Your task to perform on an android device: turn on translation in the chrome app Image 0: 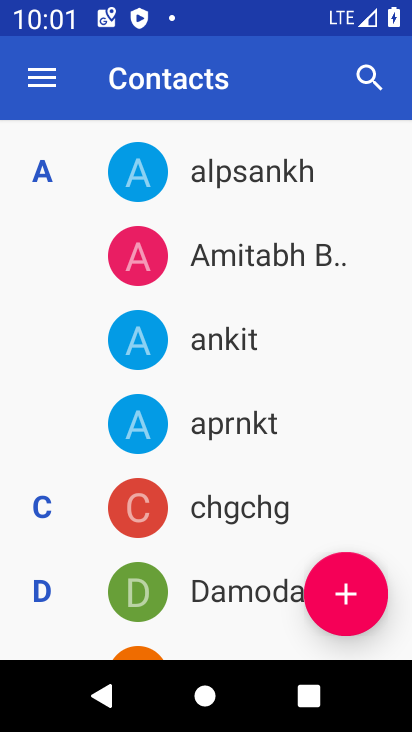
Step 0: press home button
Your task to perform on an android device: turn on translation in the chrome app Image 1: 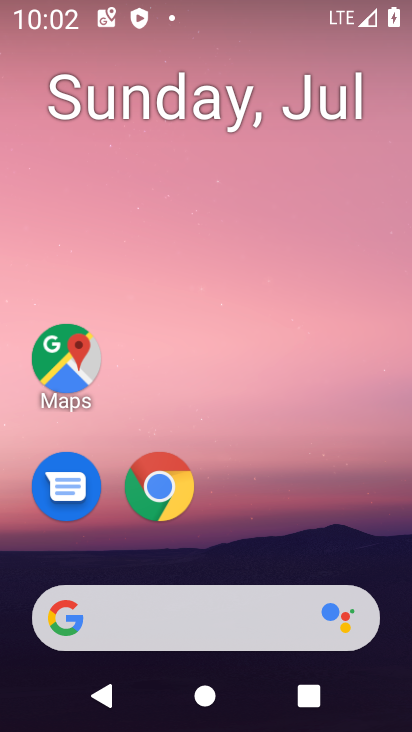
Step 1: drag from (373, 580) to (392, 119)
Your task to perform on an android device: turn on translation in the chrome app Image 2: 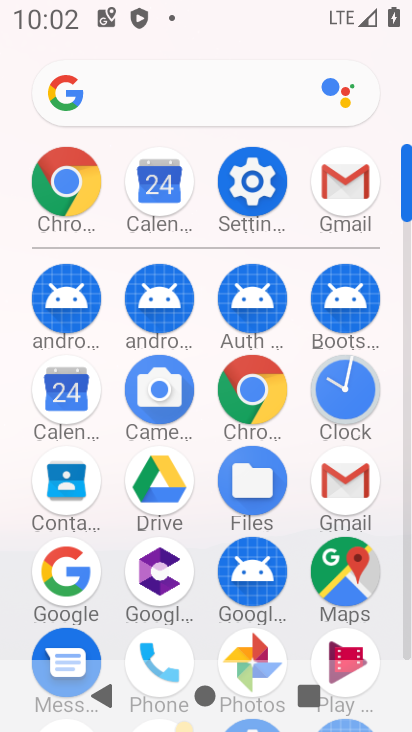
Step 2: click (261, 391)
Your task to perform on an android device: turn on translation in the chrome app Image 3: 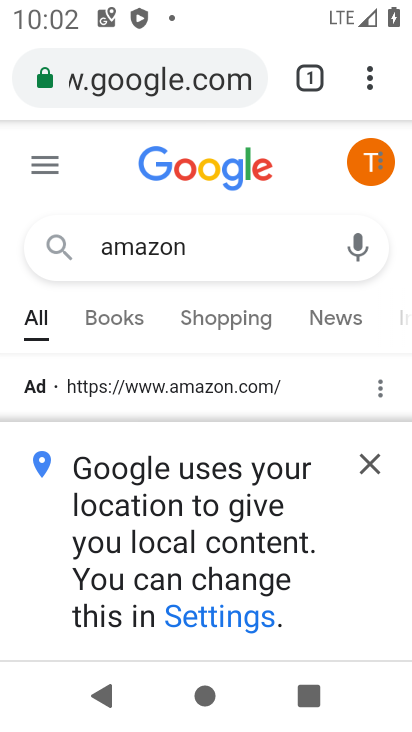
Step 3: click (368, 82)
Your task to perform on an android device: turn on translation in the chrome app Image 4: 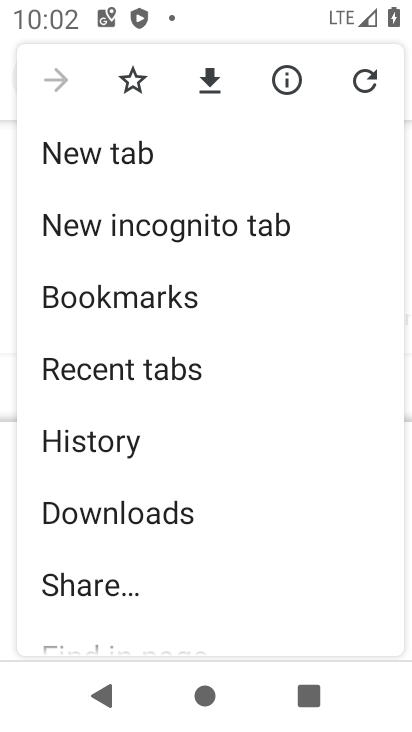
Step 4: drag from (334, 492) to (336, 369)
Your task to perform on an android device: turn on translation in the chrome app Image 5: 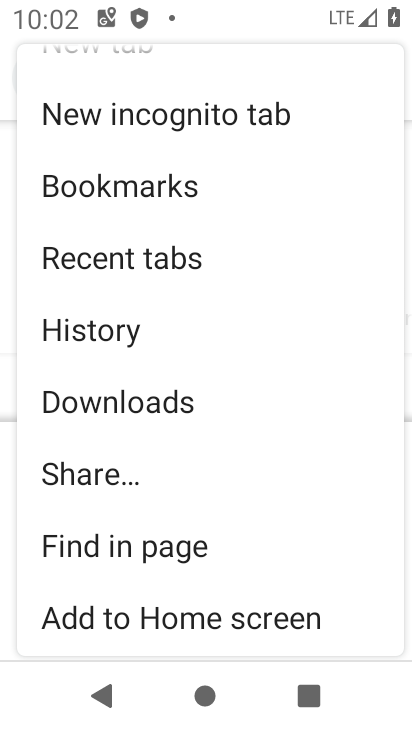
Step 5: drag from (338, 479) to (333, 301)
Your task to perform on an android device: turn on translation in the chrome app Image 6: 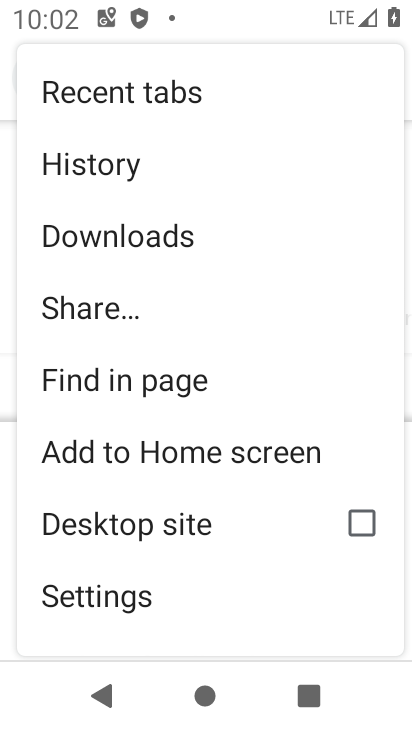
Step 6: drag from (276, 538) to (266, 342)
Your task to perform on an android device: turn on translation in the chrome app Image 7: 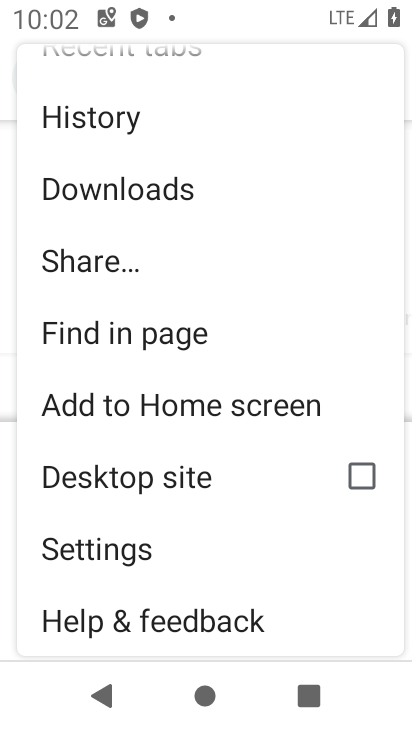
Step 7: click (263, 569)
Your task to perform on an android device: turn on translation in the chrome app Image 8: 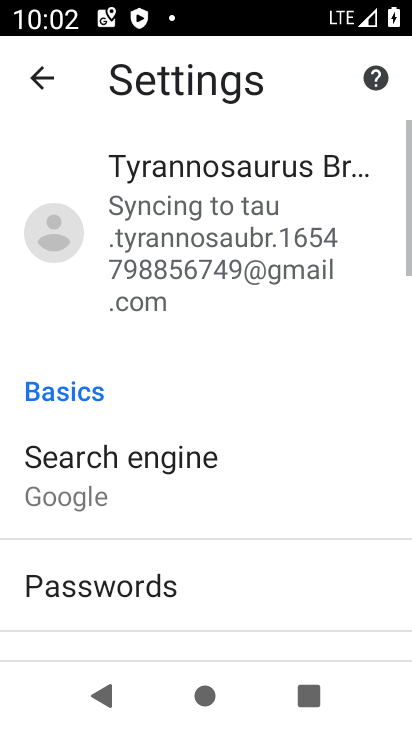
Step 8: drag from (299, 538) to (307, 437)
Your task to perform on an android device: turn on translation in the chrome app Image 9: 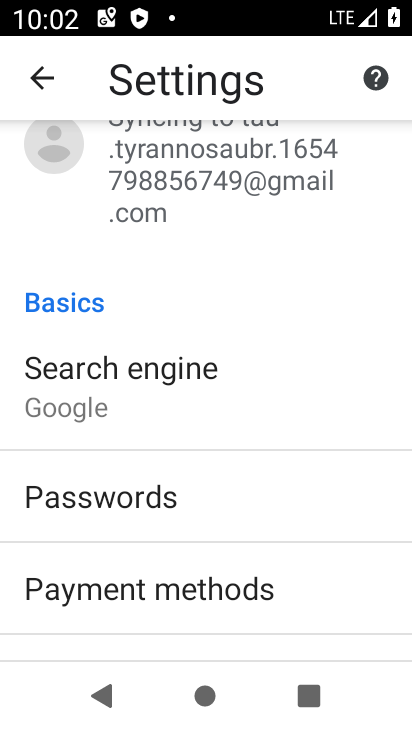
Step 9: drag from (333, 524) to (331, 392)
Your task to perform on an android device: turn on translation in the chrome app Image 10: 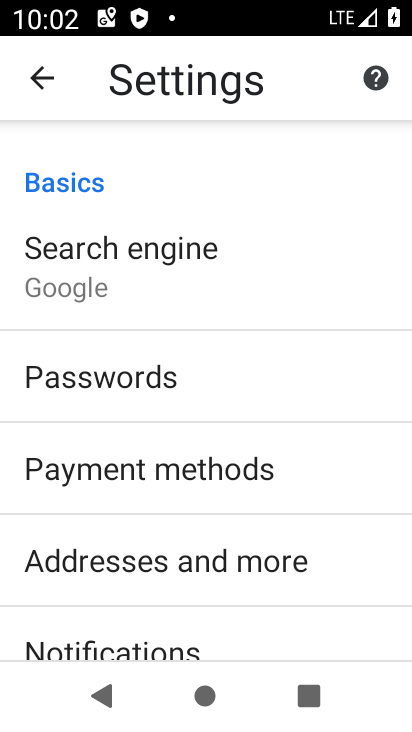
Step 10: drag from (333, 547) to (336, 431)
Your task to perform on an android device: turn on translation in the chrome app Image 11: 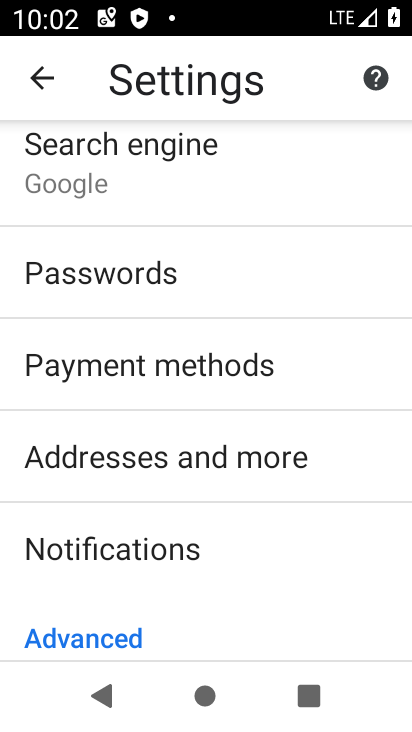
Step 11: drag from (334, 549) to (340, 426)
Your task to perform on an android device: turn on translation in the chrome app Image 12: 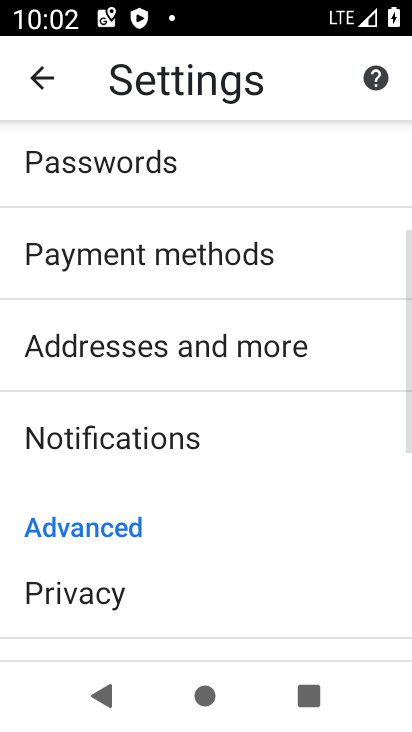
Step 12: drag from (310, 565) to (316, 451)
Your task to perform on an android device: turn on translation in the chrome app Image 13: 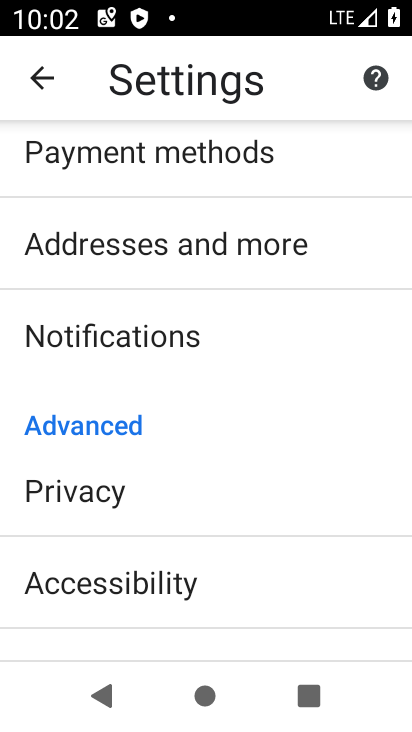
Step 13: drag from (324, 596) to (323, 469)
Your task to perform on an android device: turn on translation in the chrome app Image 14: 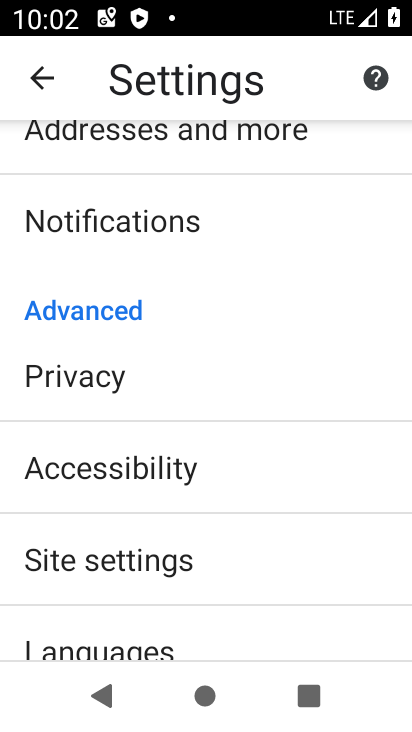
Step 14: drag from (318, 581) to (317, 475)
Your task to perform on an android device: turn on translation in the chrome app Image 15: 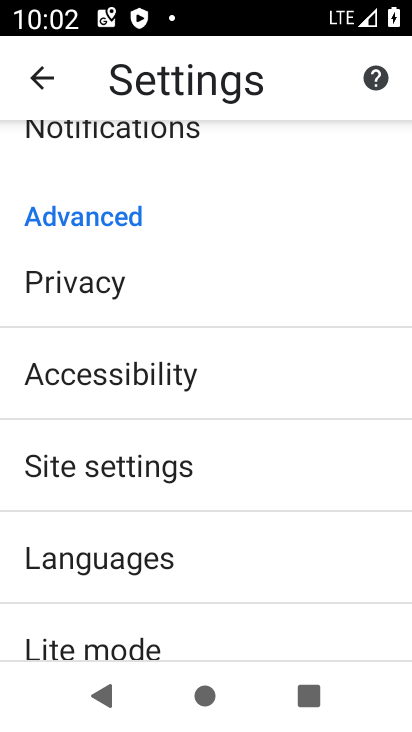
Step 15: click (292, 548)
Your task to perform on an android device: turn on translation in the chrome app Image 16: 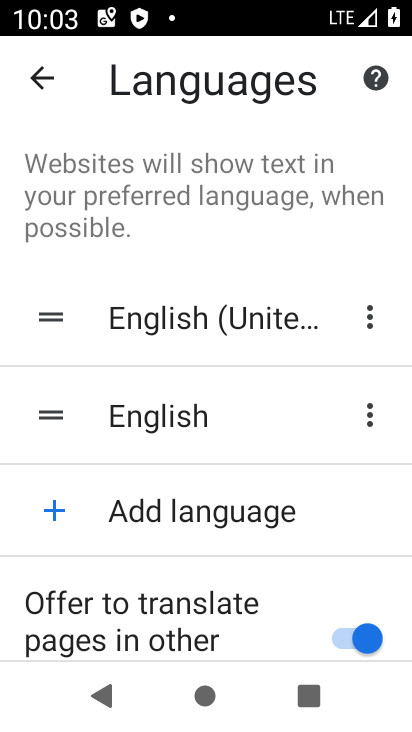
Step 16: task complete